Your task to perform on an android device: set the stopwatch Image 0: 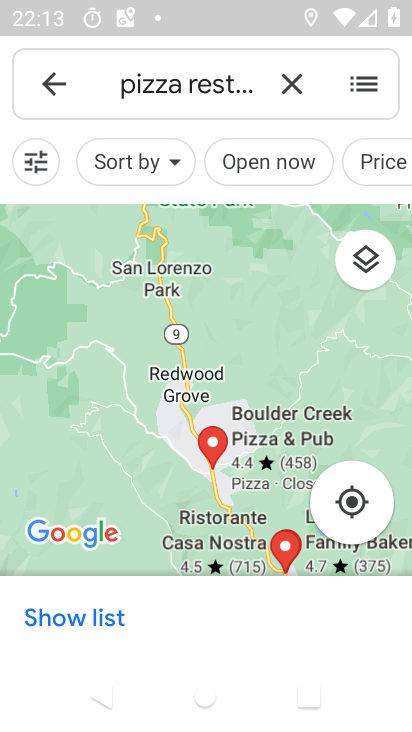
Step 0: press home button
Your task to perform on an android device: set the stopwatch Image 1: 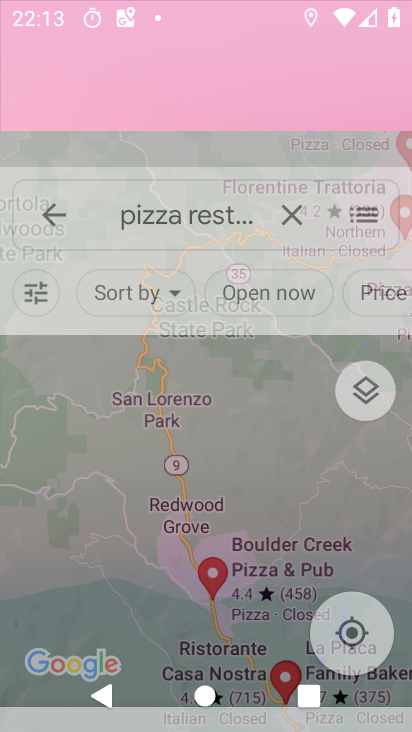
Step 1: drag from (235, 538) to (277, 17)
Your task to perform on an android device: set the stopwatch Image 2: 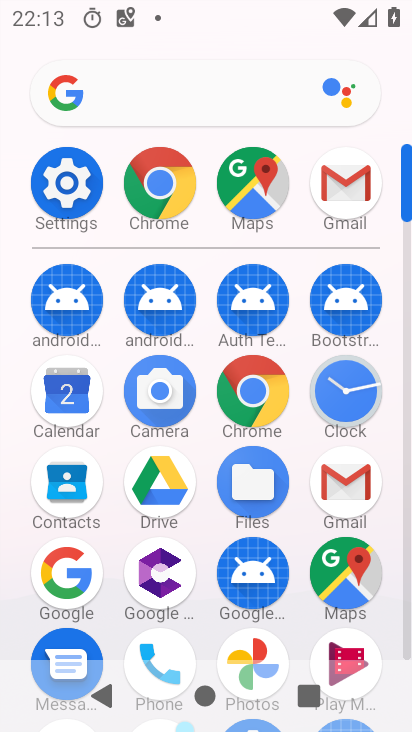
Step 2: click (354, 415)
Your task to perform on an android device: set the stopwatch Image 3: 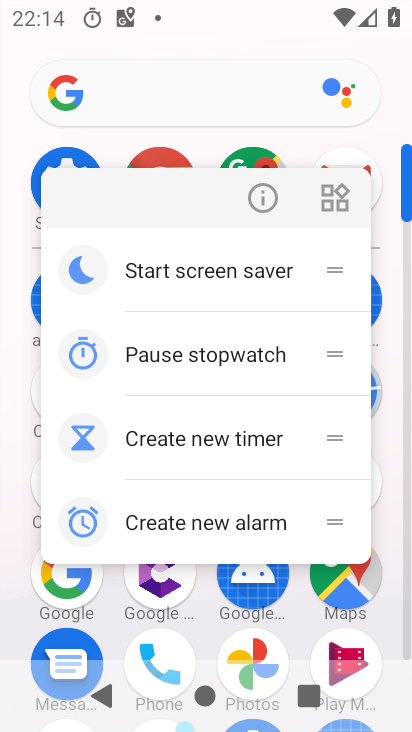
Step 3: click (264, 204)
Your task to perform on an android device: set the stopwatch Image 4: 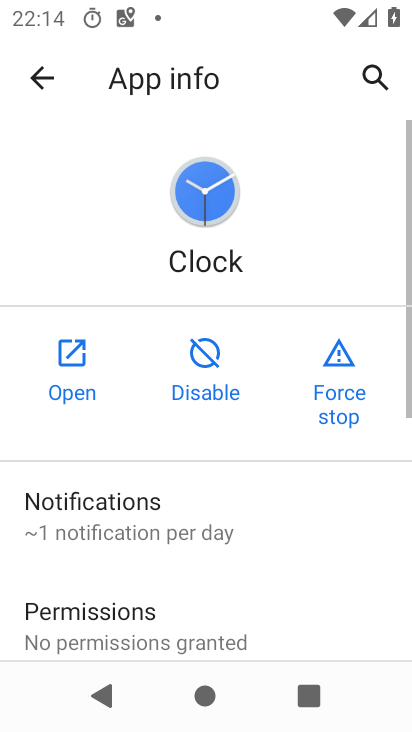
Step 4: click (84, 379)
Your task to perform on an android device: set the stopwatch Image 5: 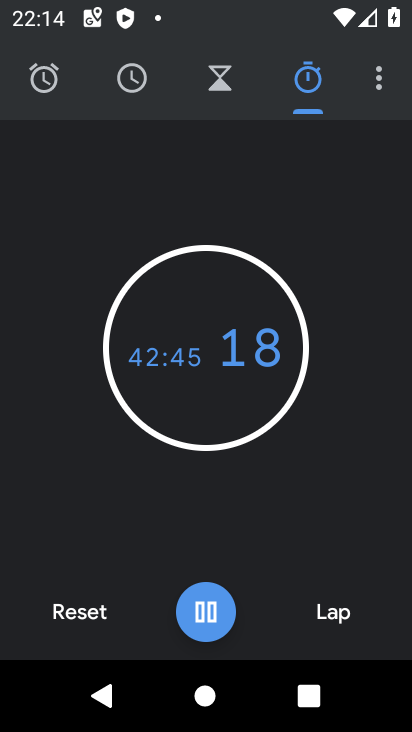
Step 5: task complete